Your task to perform on an android device: Open notification settings Image 0: 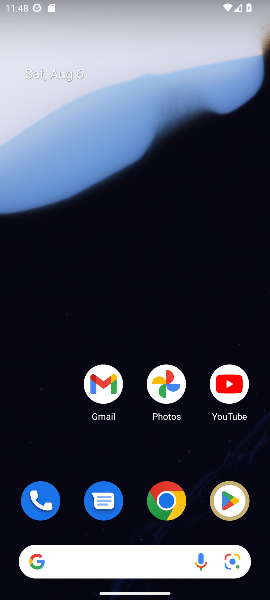
Step 0: drag from (117, 489) to (95, 249)
Your task to perform on an android device: Open notification settings Image 1: 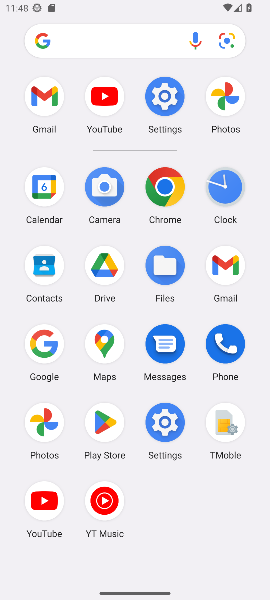
Step 1: click (168, 429)
Your task to perform on an android device: Open notification settings Image 2: 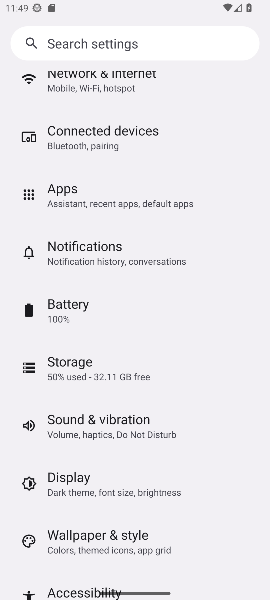
Step 2: click (108, 250)
Your task to perform on an android device: Open notification settings Image 3: 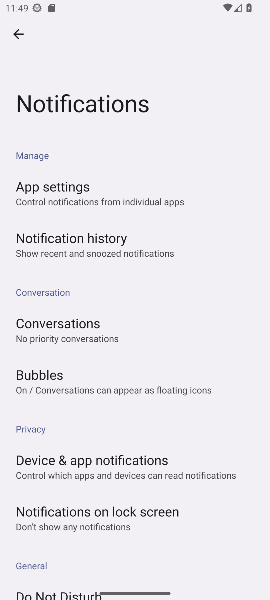
Step 3: task complete